Your task to perform on an android device: open device folders in google photos Image 0: 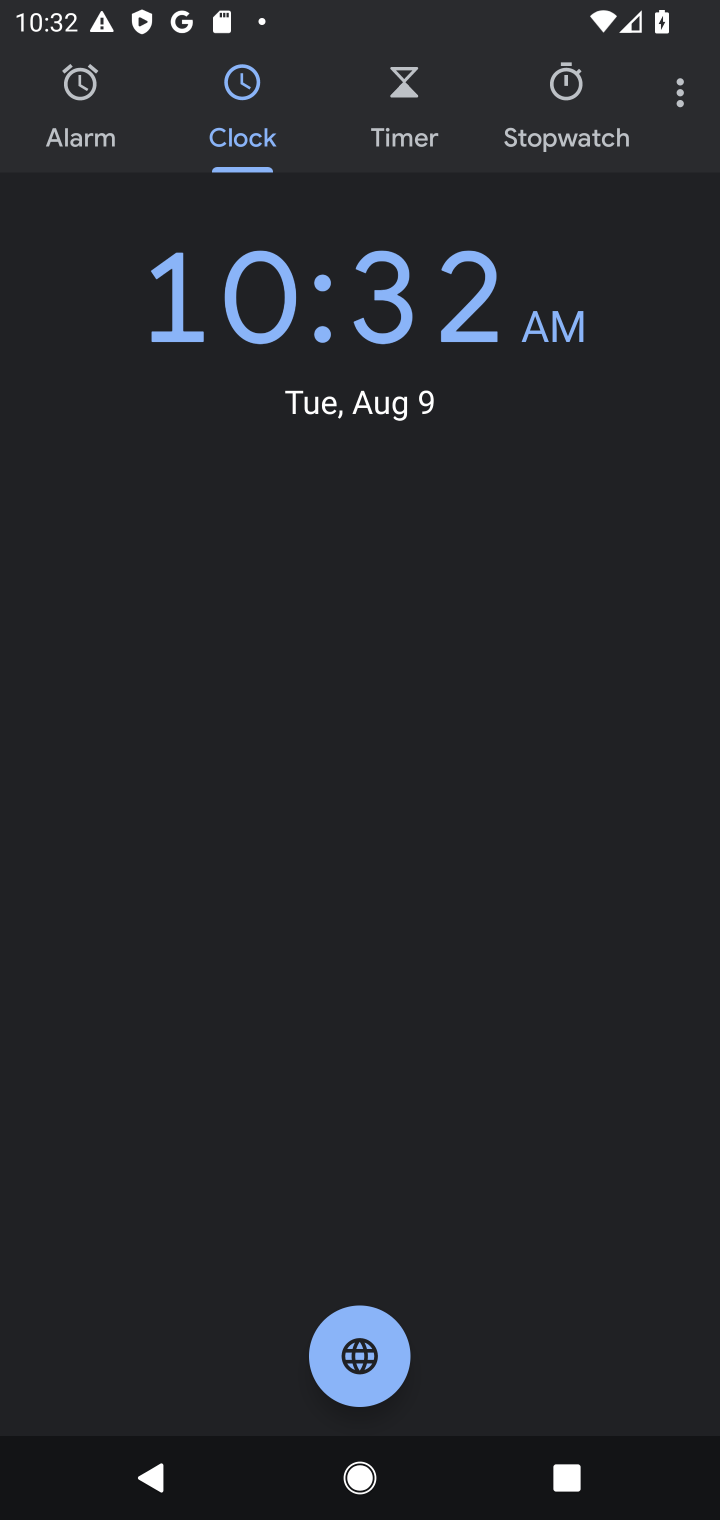
Step 0: press home button
Your task to perform on an android device: open device folders in google photos Image 1: 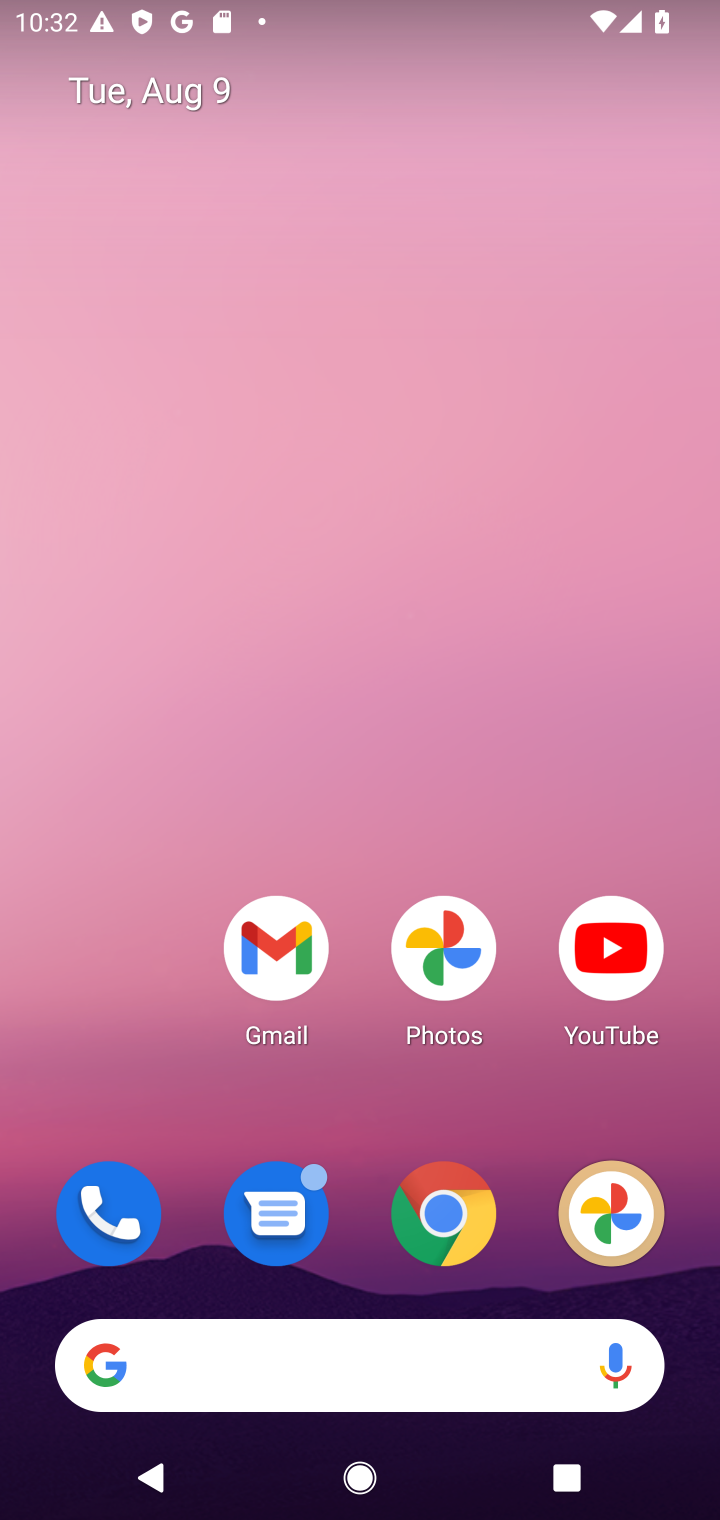
Step 1: click (424, 915)
Your task to perform on an android device: open device folders in google photos Image 2: 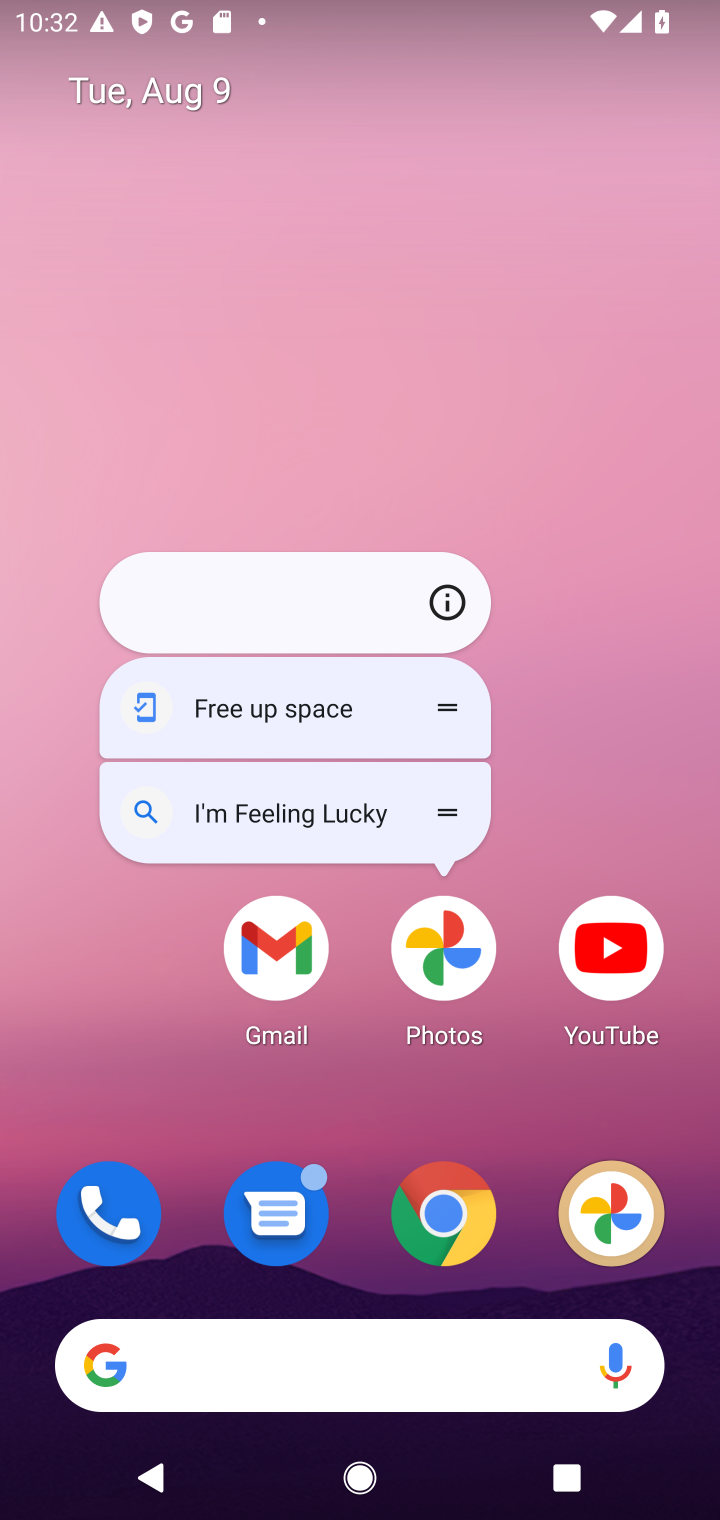
Step 2: click (581, 1215)
Your task to perform on an android device: open device folders in google photos Image 3: 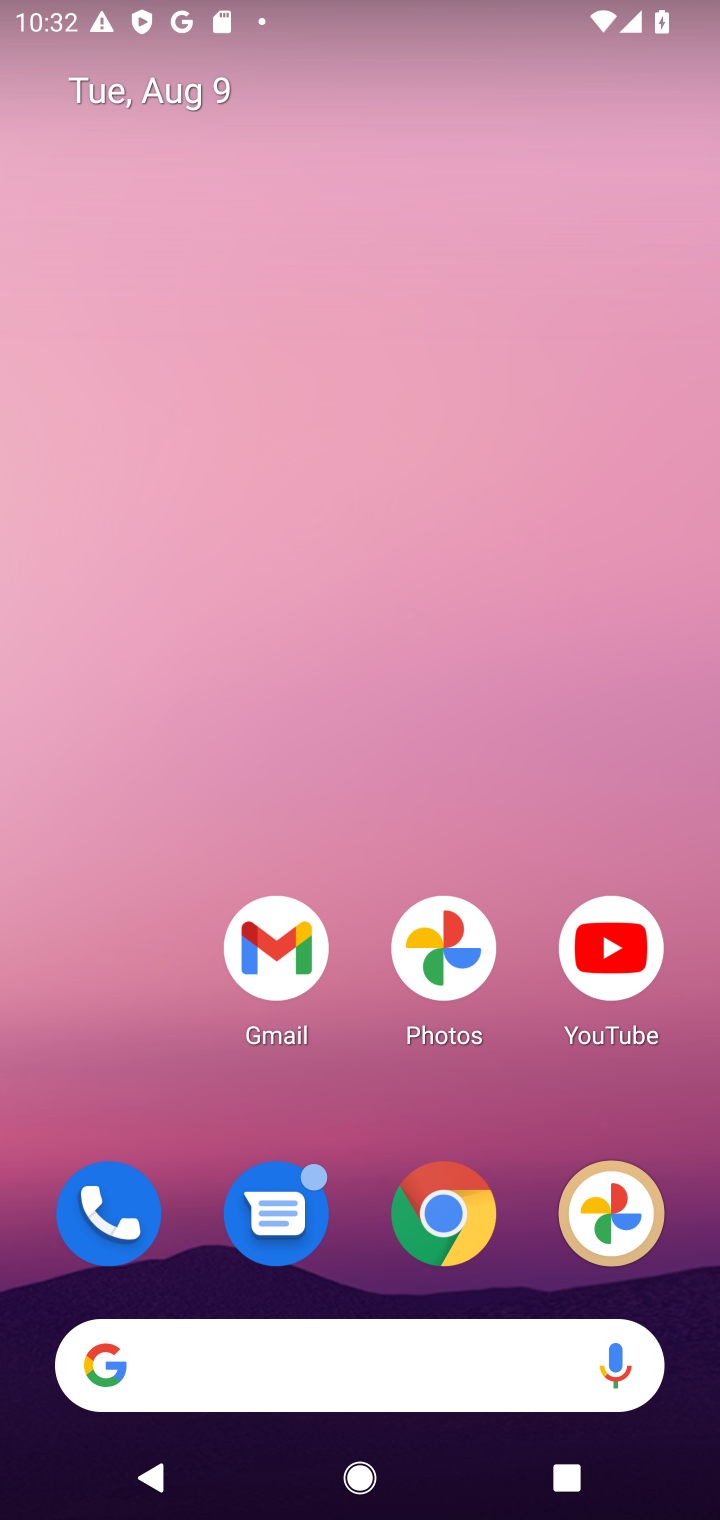
Step 3: click (596, 1210)
Your task to perform on an android device: open device folders in google photos Image 4: 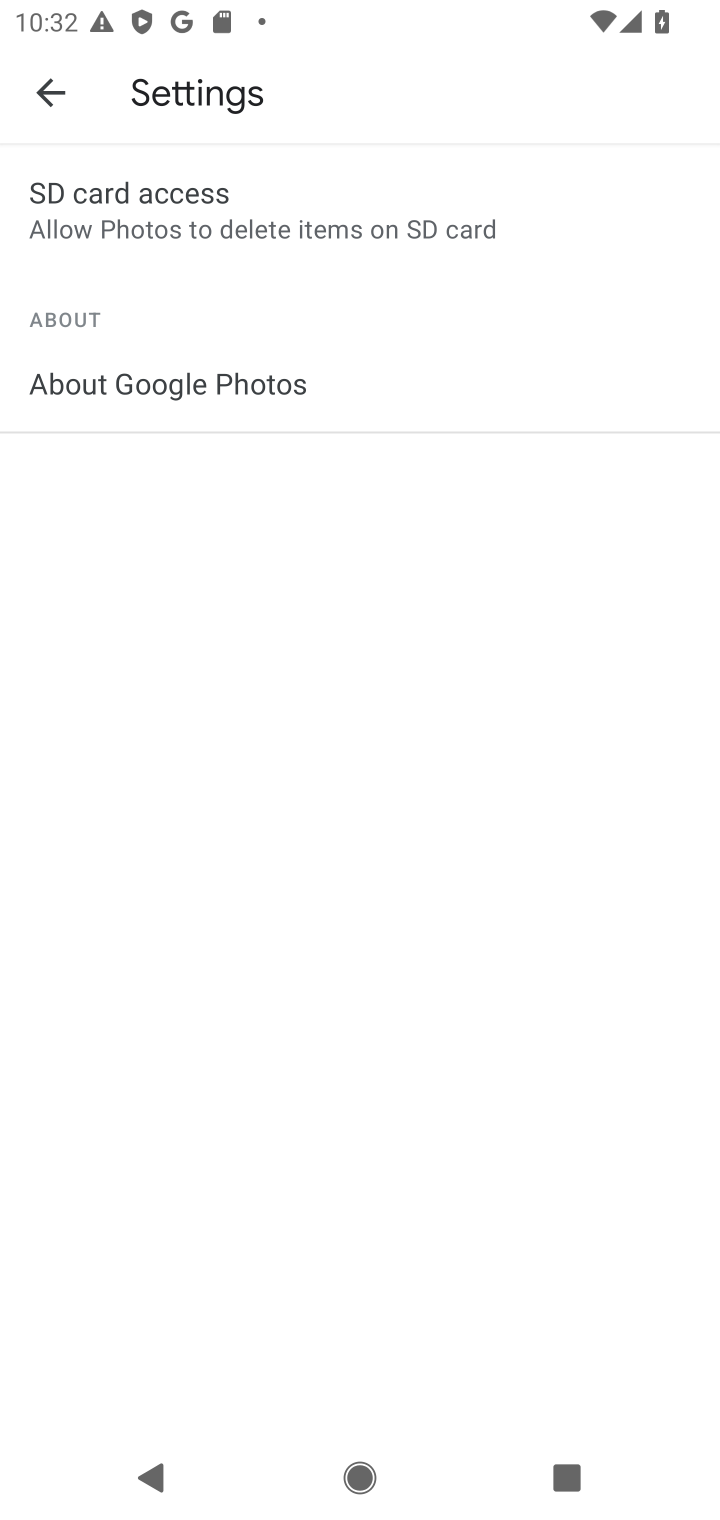
Step 4: click (32, 109)
Your task to perform on an android device: open device folders in google photos Image 5: 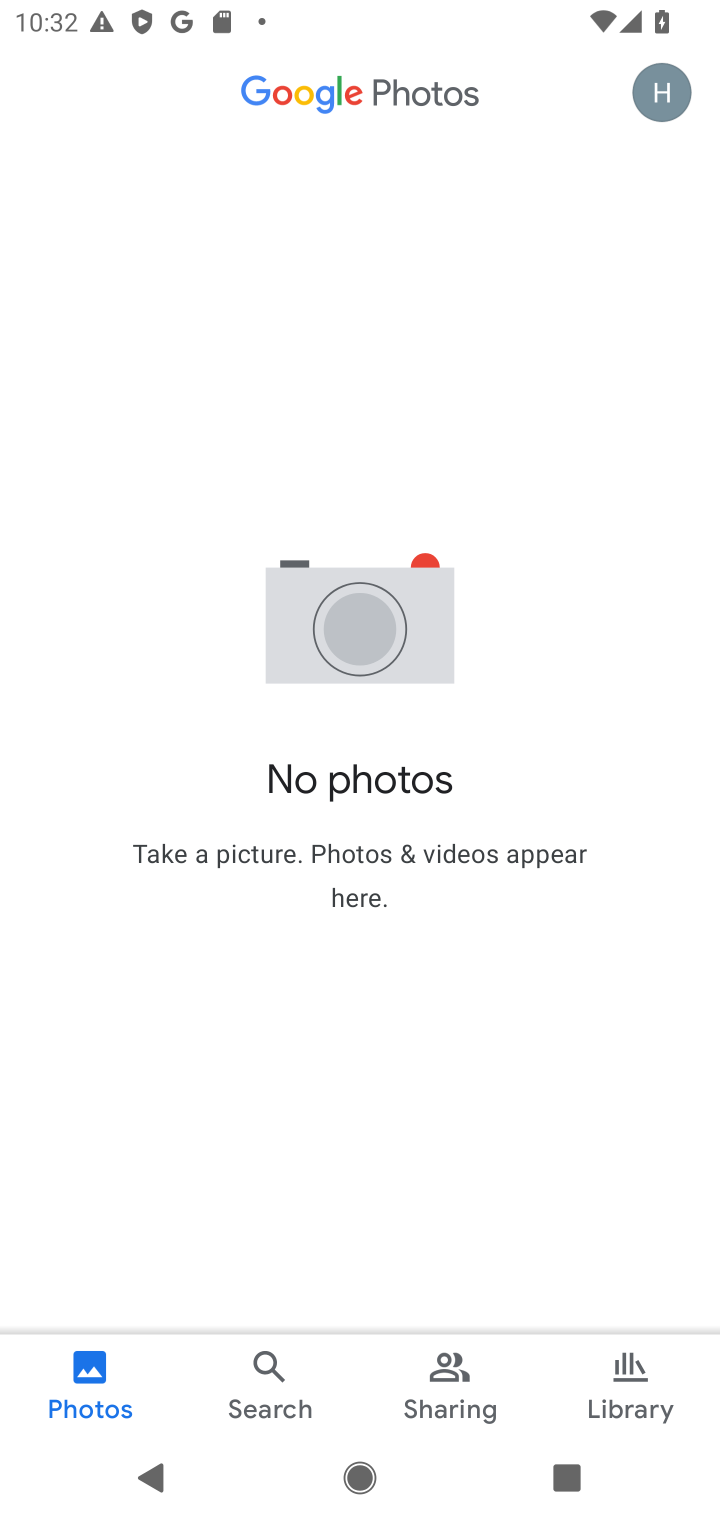
Step 5: task complete